Your task to perform on an android device: turn off wifi Image 0: 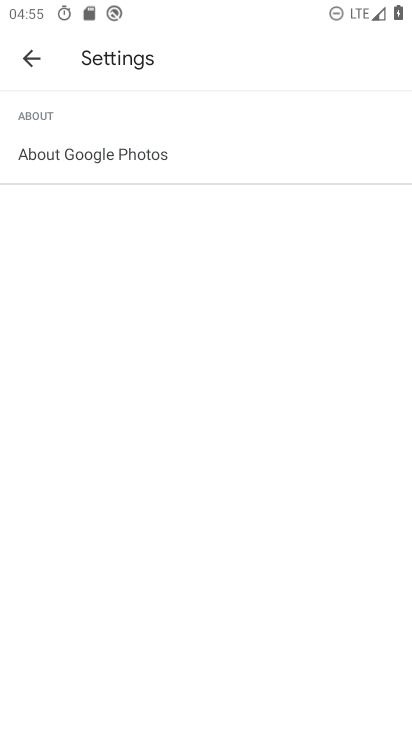
Step 0: press back button
Your task to perform on an android device: turn off wifi Image 1: 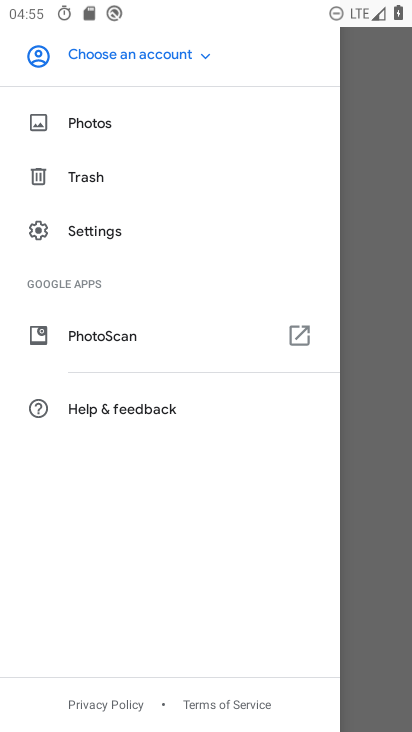
Step 1: task complete